Your task to perform on an android device: find snoozed emails in the gmail app Image 0: 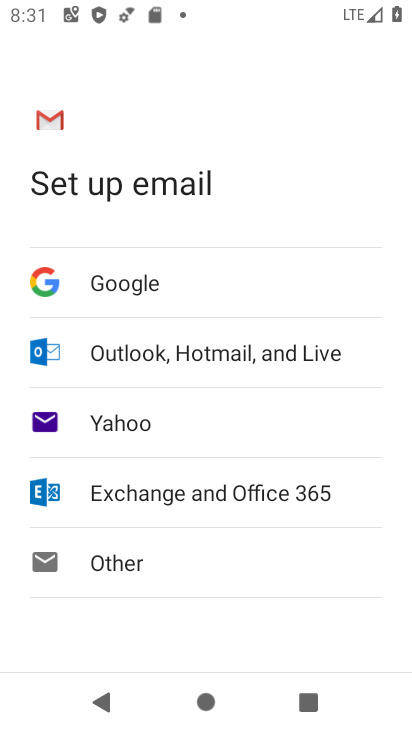
Step 0: press home button
Your task to perform on an android device: find snoozed emails in the gmail app Image 1: 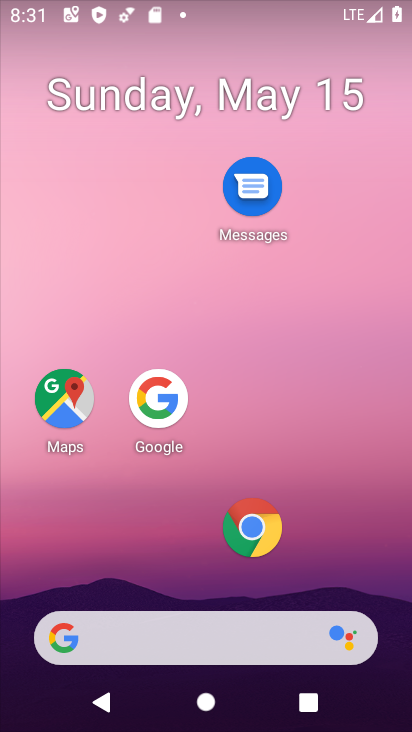
Step 1: drag from (212, 643) to (296, 322)
Your task to perform on an android device: find snoozed emails in the gmail app Image 2: 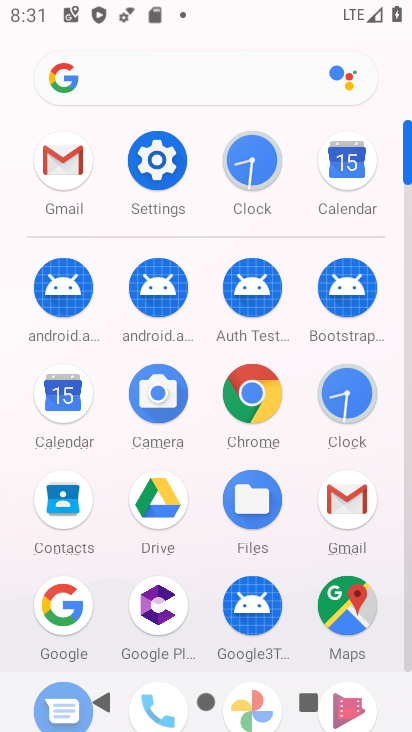
Step 2: click (346, 508)
Your task to perform on an android device: find snoozed emails in the gmail app Image 3: 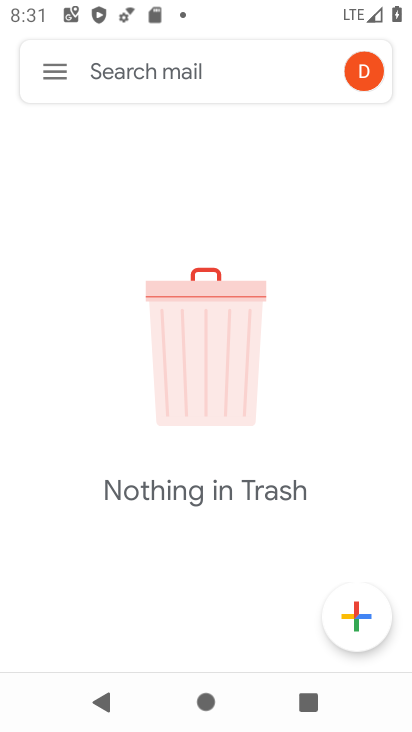
Step 3: click (56, 66)
Your task to perform on an android device: find snoozed emails in the gmail app Image 4: 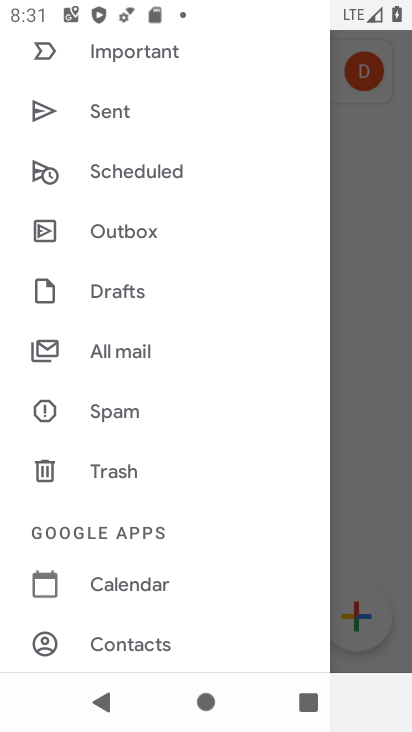
Step 4: drag from (213, 204) to (153, 432)
Your task to perform on an android device: find snoozed emails in the gmail app Image 5: 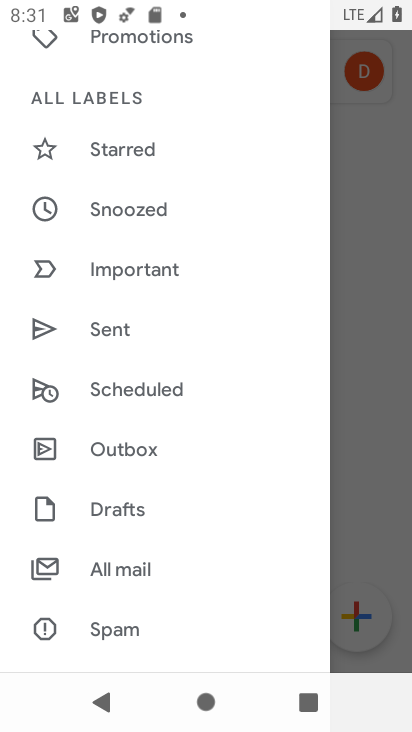
Step 5: click (134, 213)
Your task to perform on an android device: find snoozed emails in the gmail app Image 6: 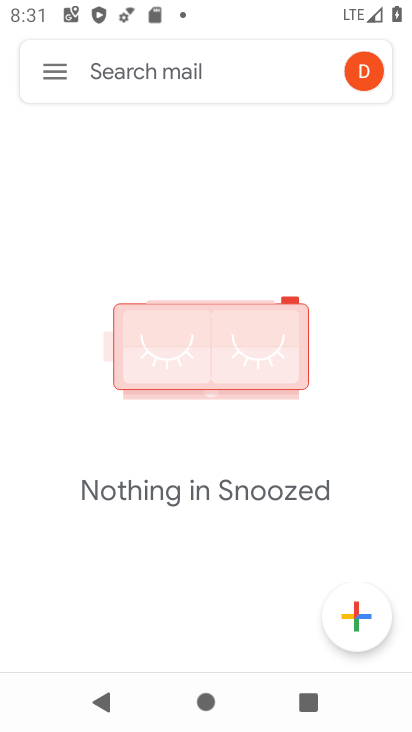
Step 6: task complete